Your task to perform on an android device: see sites visited before in the chrome app Image 0: 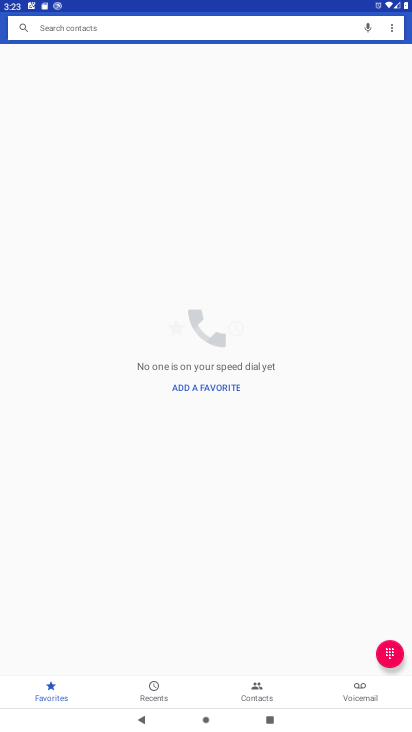
Step 0: press back button
Your task to perform on an android device: see sites visited before in the chrome app Image 1: 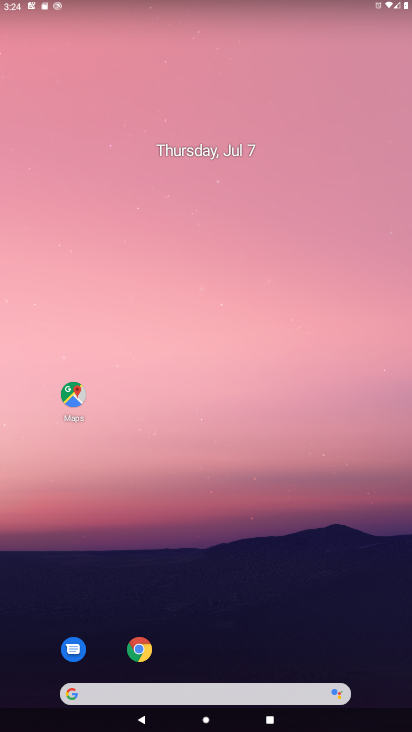
Step 1: click (126, 659)
Your task to perform on an android device: see sites visited before in the chrome app Image 2: 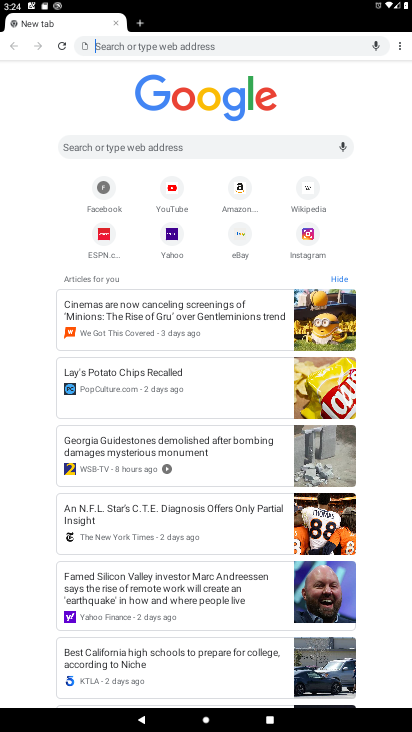
Step 2: task complete